Your task to perform on an android device: Go to display settings Image 0: 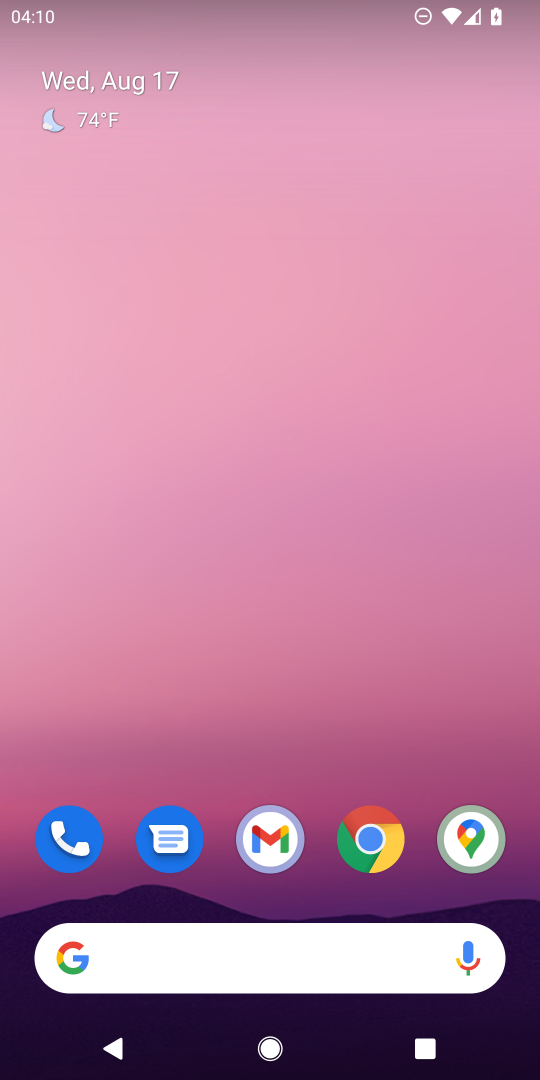
Step 0: drag from (332, 814) to (264, 4)
Your task to perform on an android device: Go to display settings Image 1: 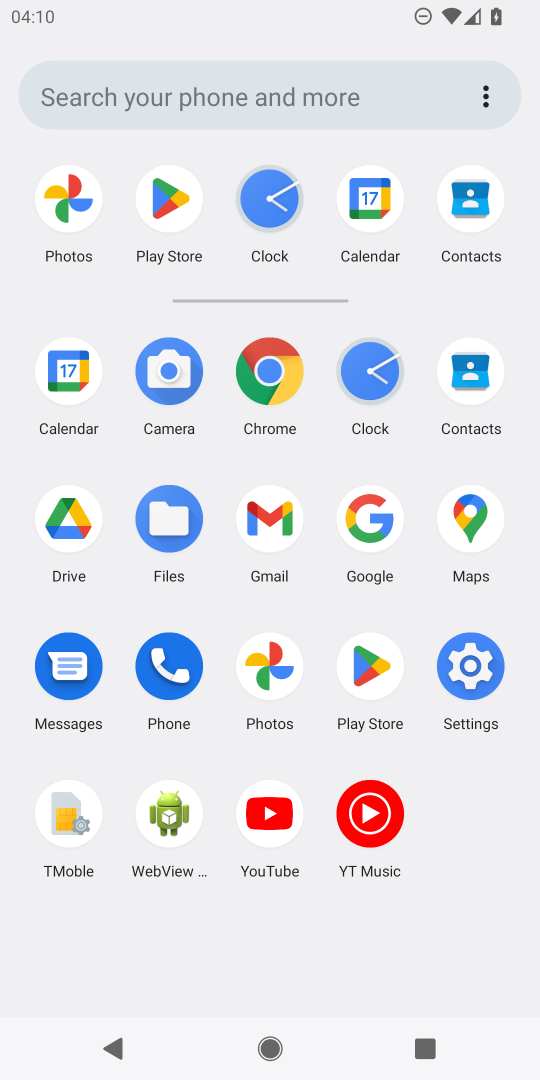
Step 1: click (474, 660)
Your task to perform on an android device: Go to display settings Image 2: 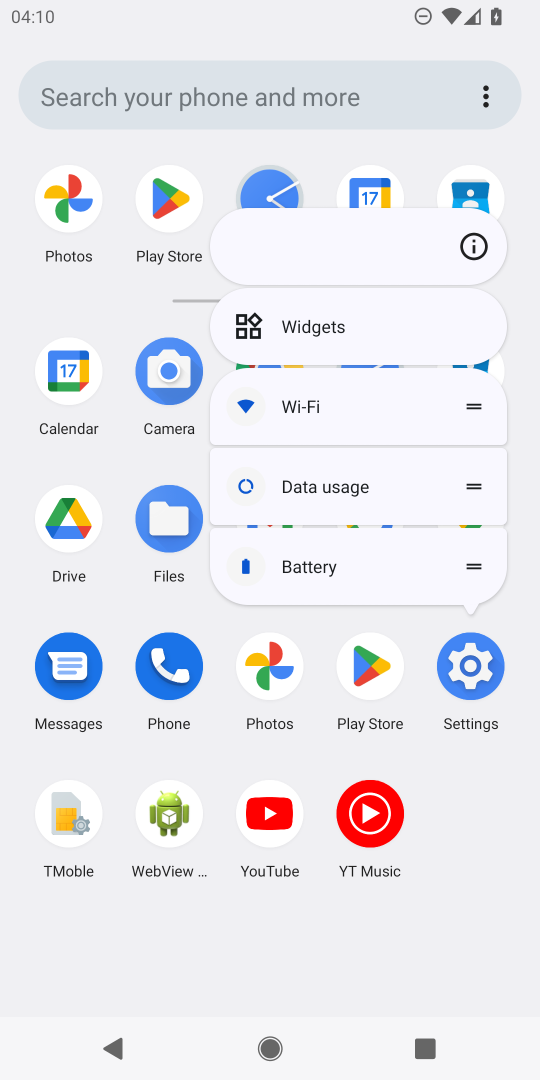
Step 2: click (458, 661)
Your task to perform on an android device: Go to display settings Image 3: 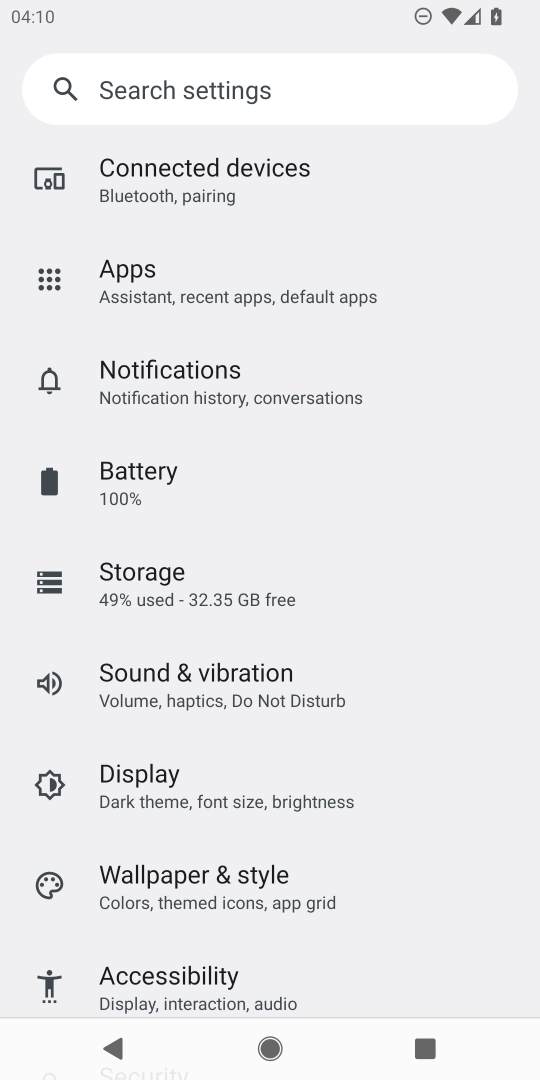
Step 3: click (153, 793)
Your task to perform on an android device: Go to display settings Image 4: 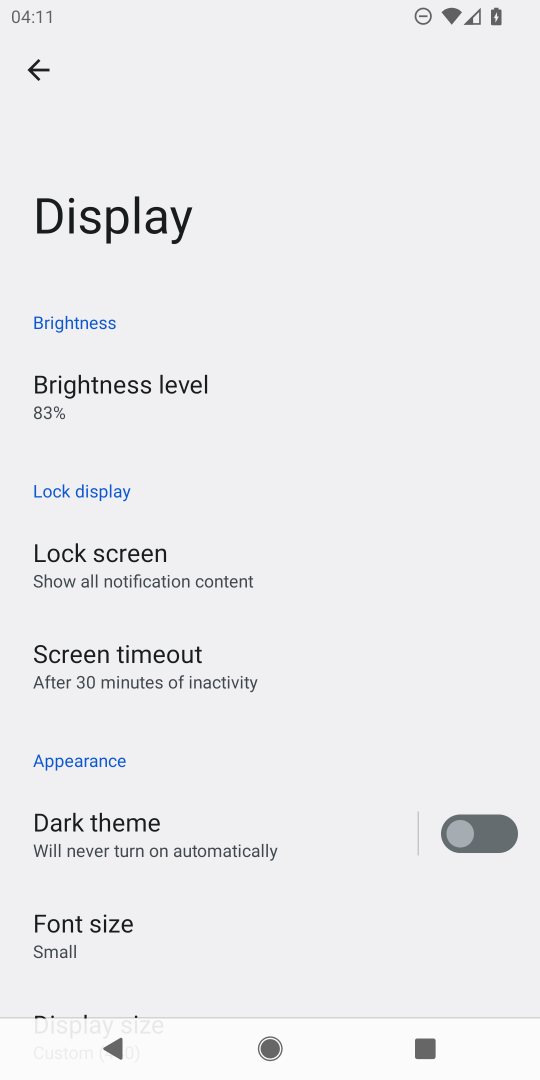
Step 4: task complete